Your task to perform on an android device: Open Android settings Image 0: 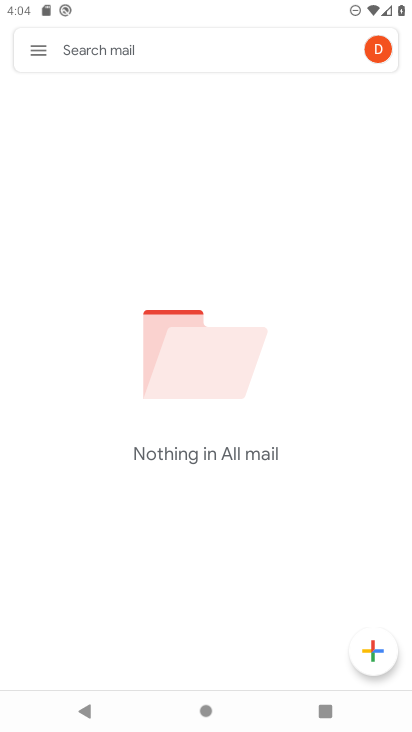
Step 0: press home button
Your task to perform on an android device: Open Android settings Image 1: 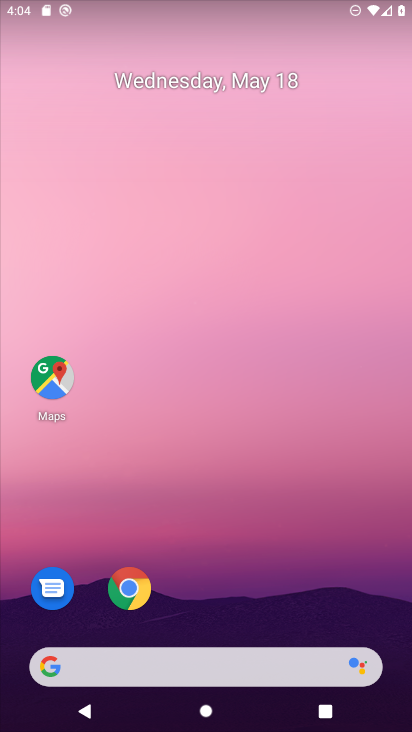
Step 1: drag from (235, 588) to (238, 119)
Your task to perform on an android device: Open Android settings Image 2: 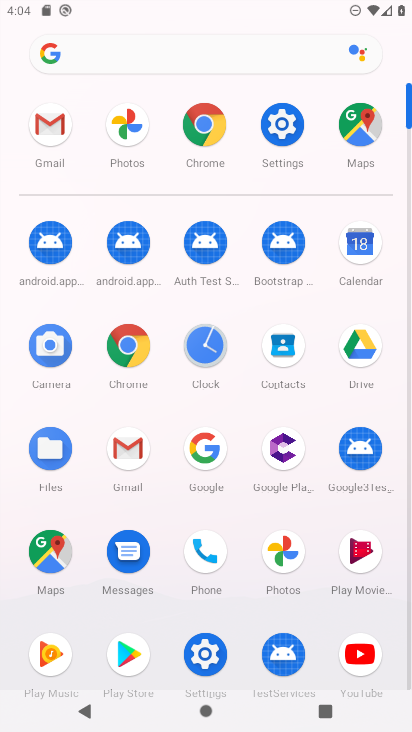
Step 2: click (296, 143)
Your task to perform on an android device: Open Android settings Image 3: 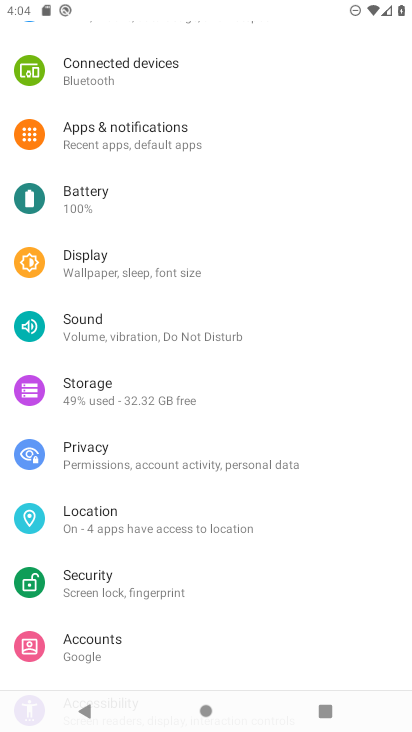
Step 3: drag from (172, 597) to (165, 231)
Your task to perform on an android device: Open Android settings Image 4: 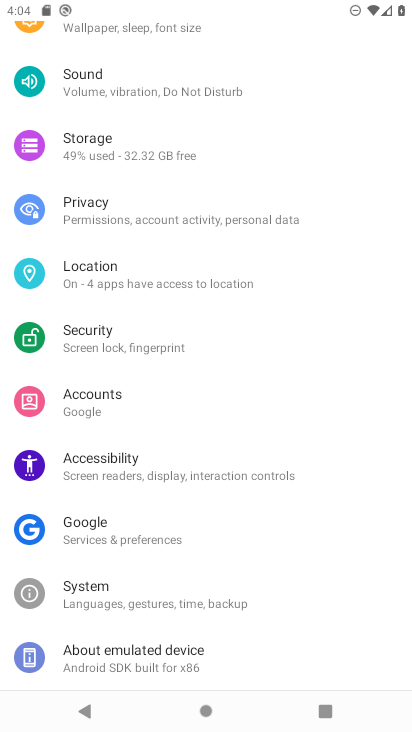
Step 4: click (149, 655)
Your task to perform on an android device: Open Android settings Image 5: 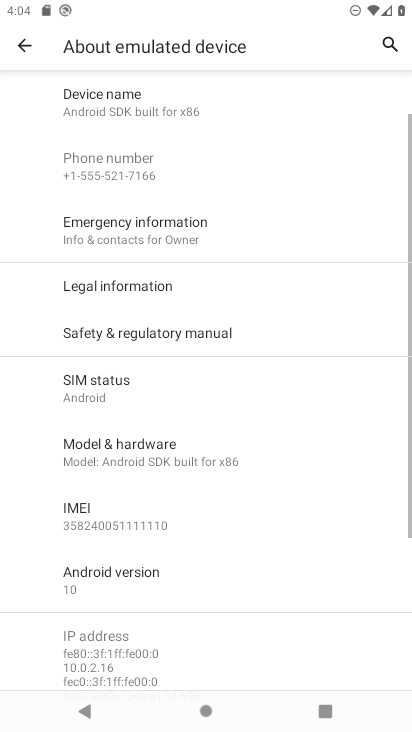
Step 5: task complete